Your task to perform on an android device: Go to Google maps Image 0: 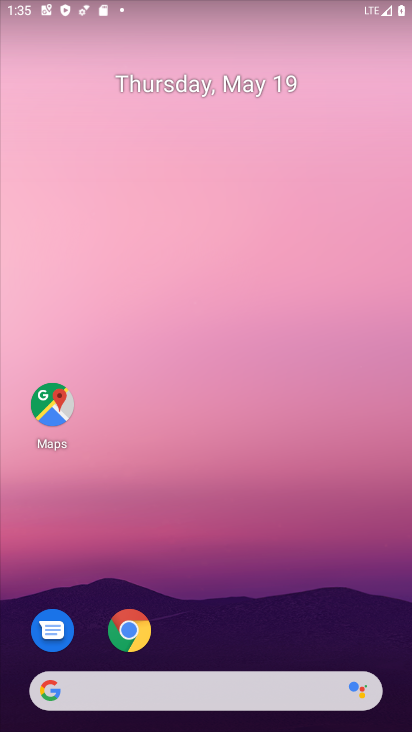
Step 0: drag from (218, 666) to (145, 29)
Your task to perform on an android device: Go to Google maps Image 1: 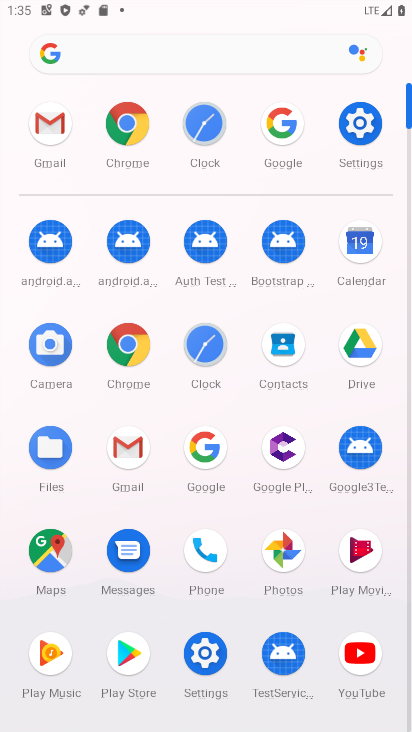
Step 1: click (32, 561)
Your task to perform on an android device: Go to Google maps Image 2: 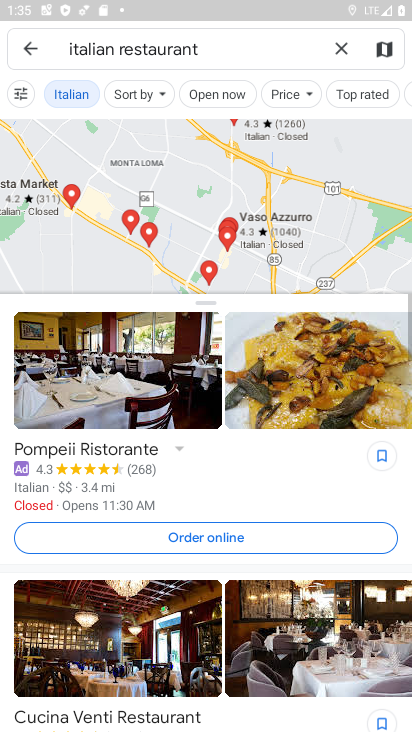
Step 2: task complete